Your task to perform on an android device: Open network settings Image 0: 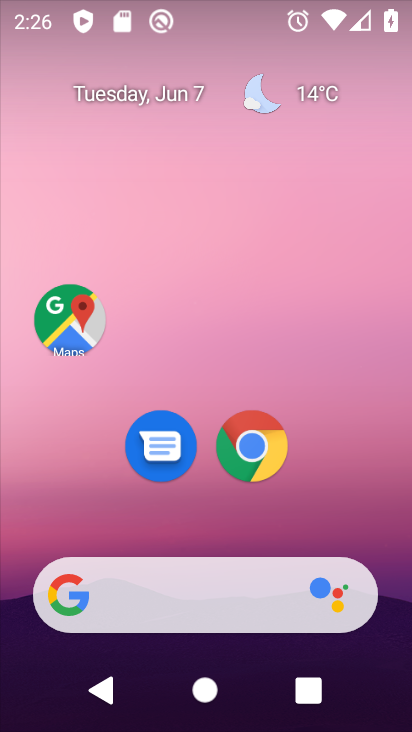
Step 0: drag from (398, 598) to (344, 30)
Your task to perform on an android device: Open network settings Image 1: 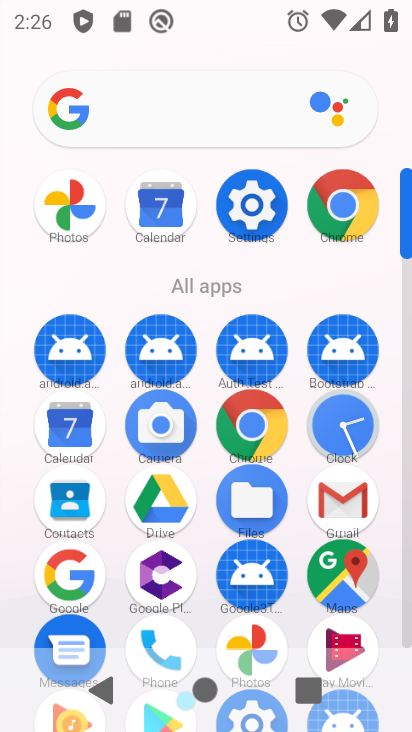
Step 1: click (407, 611)
Your task to perform on an android device: Open network settings Image 2: 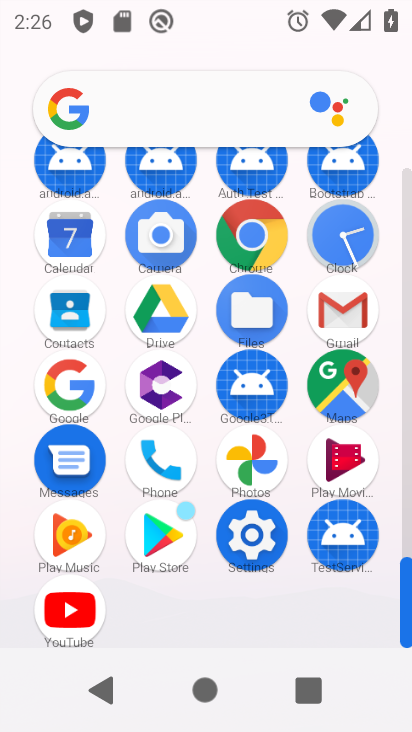
Step 2: click (248, 534)
Your task to perform on an android device: Open network settings Image 3: 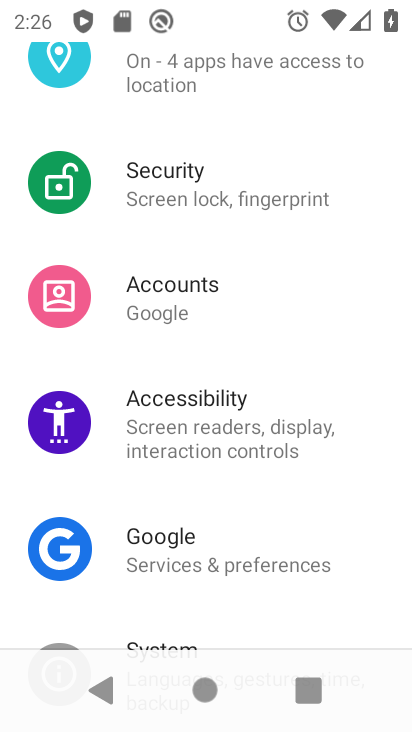
Step 3: drag from (342, 281) to (336, 528)
Your task to perform on an android device: Open network settings Image 4: 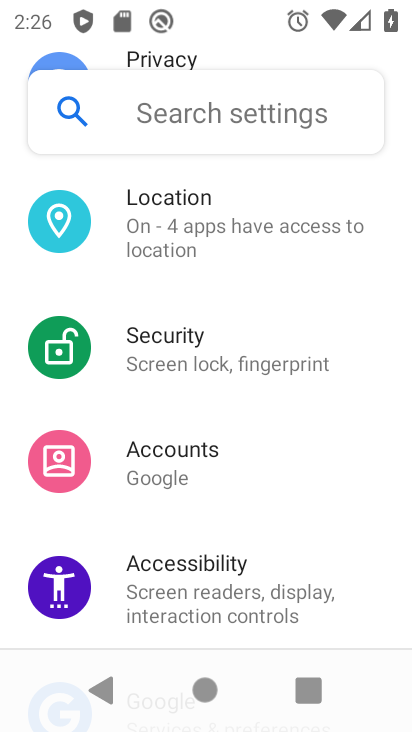
Step 4: drag from (359, 241) to (340, 582)
Your task to perform on an android device: Open network settings Image 5: 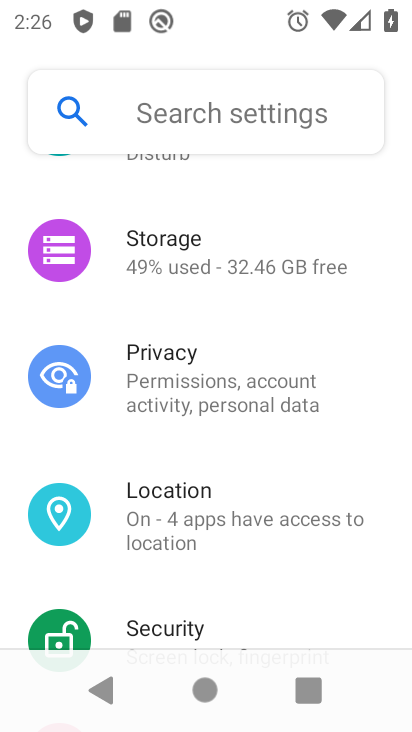
Step 5: drag from (352, 239) to (354, 580)
Your task to perform on an android device: Open network settings Image 6: 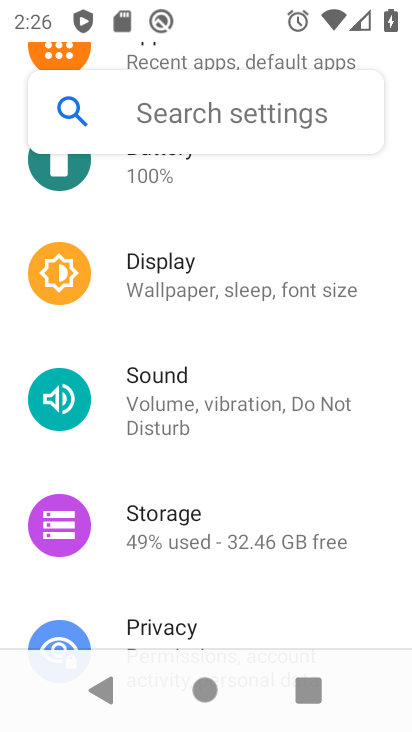
Step 6: drag from (336, 224) to (342, 546)
Your task to perform on an android device: Open network settings Image 7: 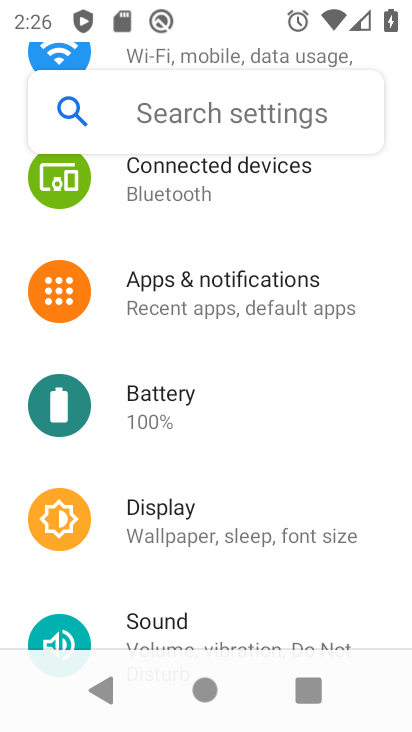
Step 7: drag from (345, 254) to (339, 516)
Your task to perform on an android device: Open network settings Image 8: 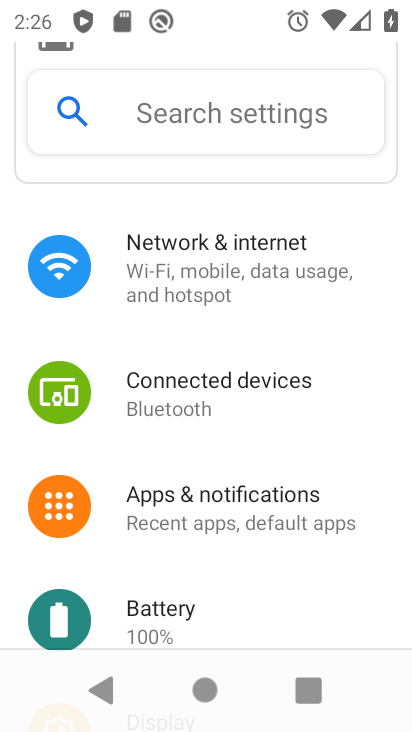
Step 8: click (177, 261)
Your task to perform on an android device: Open network settings Image 9: 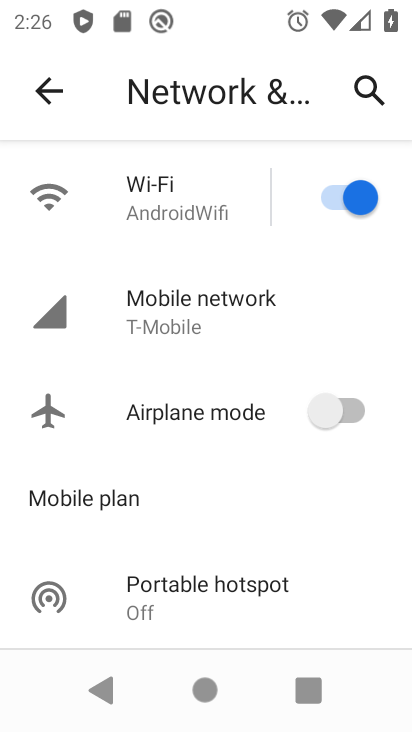
Step 9: click (159, 301)
Your task to perform on an android device: Open network settings Image 10: 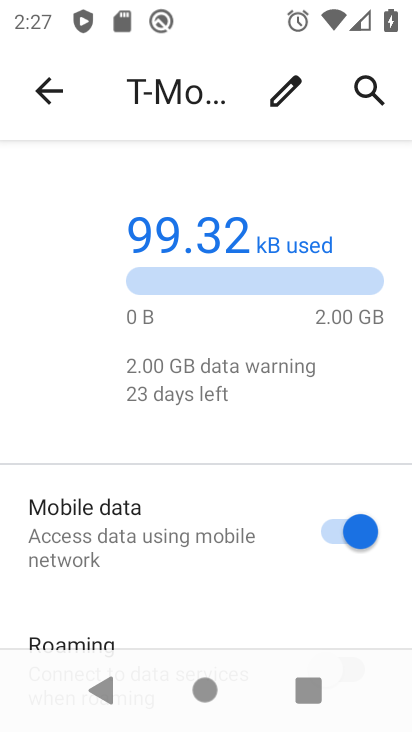
Step 10: task complete